Your task to perform on an android device: When is my next appointment? Image 0: 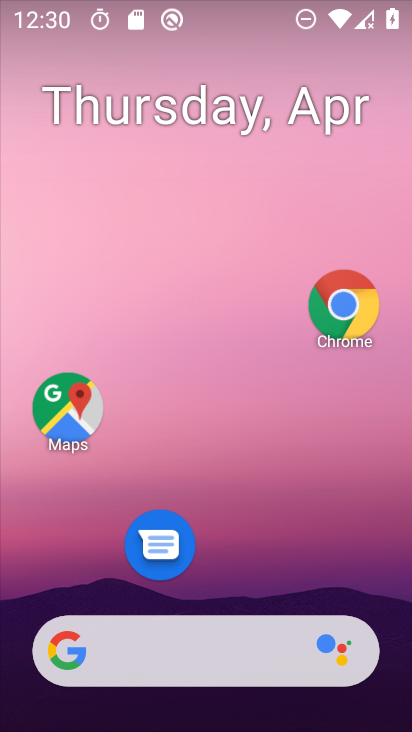
Step 0: drag from (246, 612) to (274, 196)
Your task to perform on an android device: When is my next appointment? Image 1: 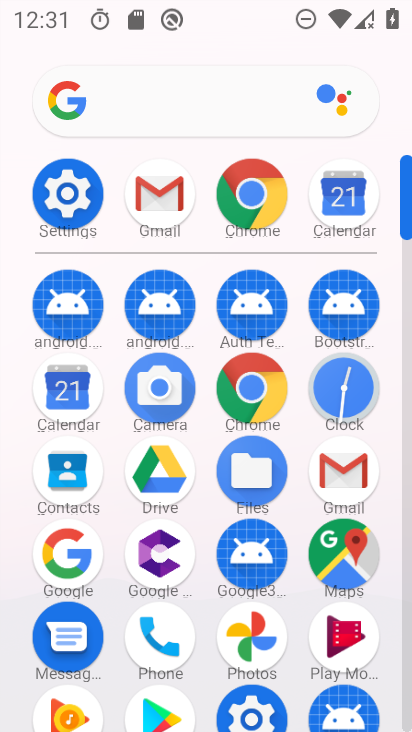
Step 1: click (88, 398)
Your task to perform on an android device: When is my next appointment? Image 2: 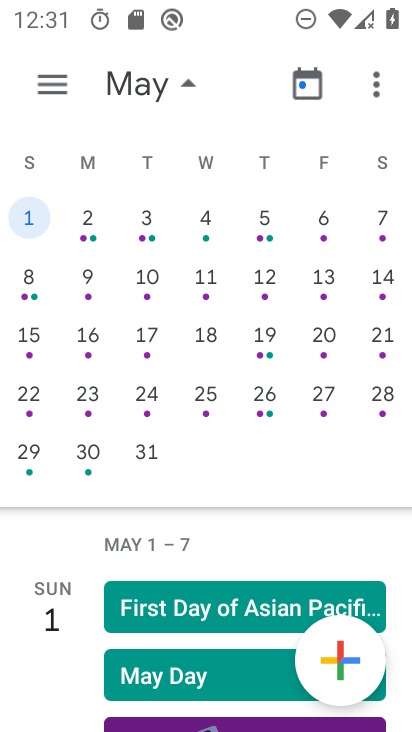
Step 2: drag from (123, 386) to (395, 468)
Your task to perform on an android device: When is my next appointment? Image 3: 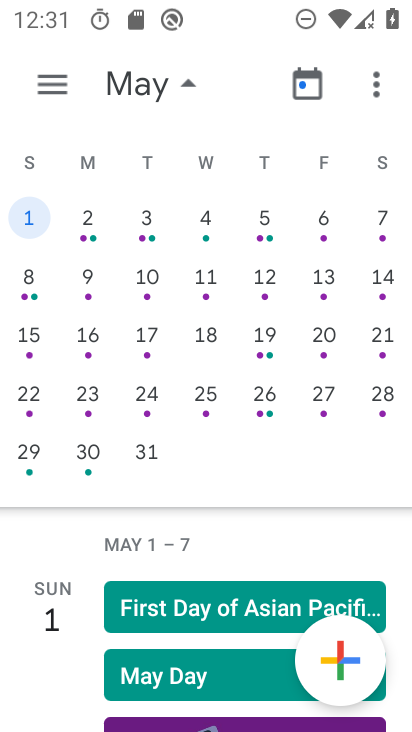
Step 3: drag from (59, 372) to (410, 383)
Your task to perform on an android device: When is my next appointment? Image 4: 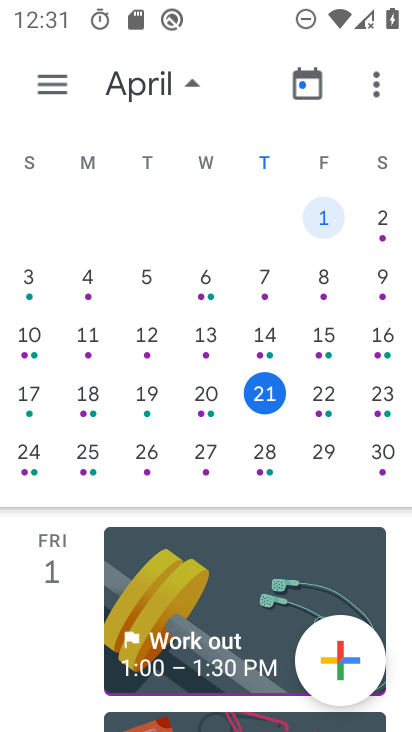
Step 4: click (213, 410)
Your task to perform on an android device: When is my next appointment? Image 5: 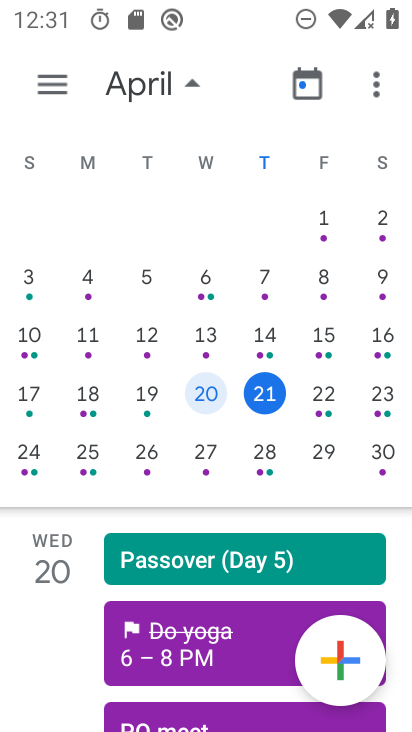
Step 5: task complete